Your task to perform on an android device: Open privacy settings Image 0: 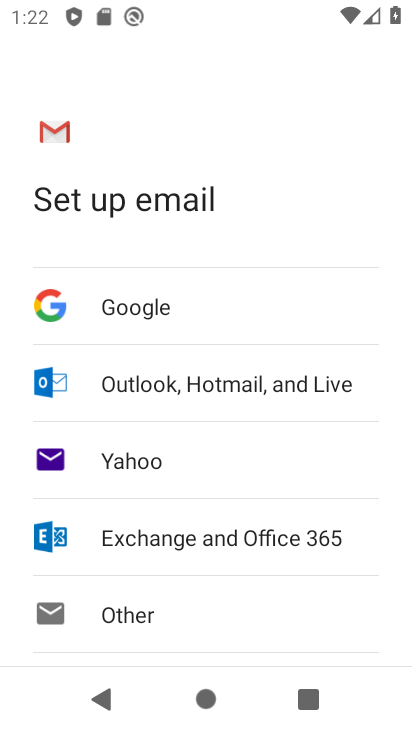
Step 0: press home button
Your task to perform on an android device: Open privacy settings Image 1: 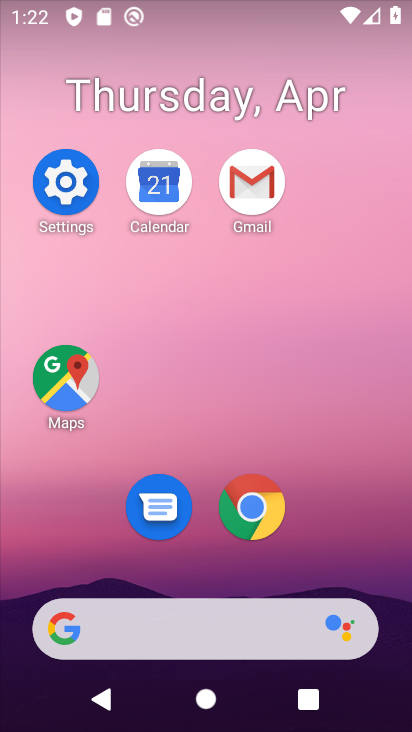
Step 1: click (79, 184)
Your task to perform on an android device: Open privacy settings Image 2: 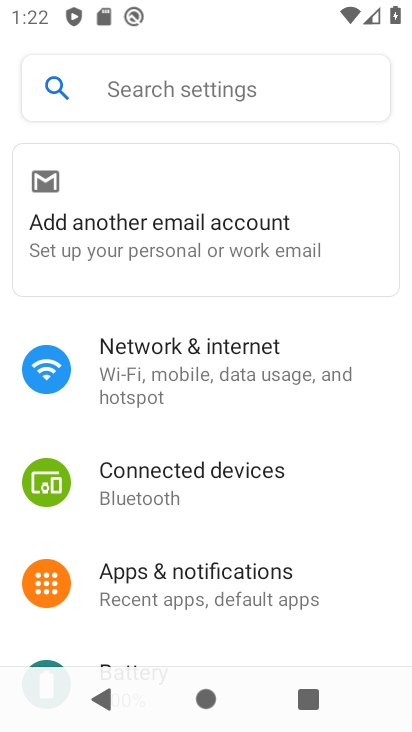
Step 2: drag from (163, 611) to (213, 115)
Your task to perform on an android device: Open privacy settings Image 3: 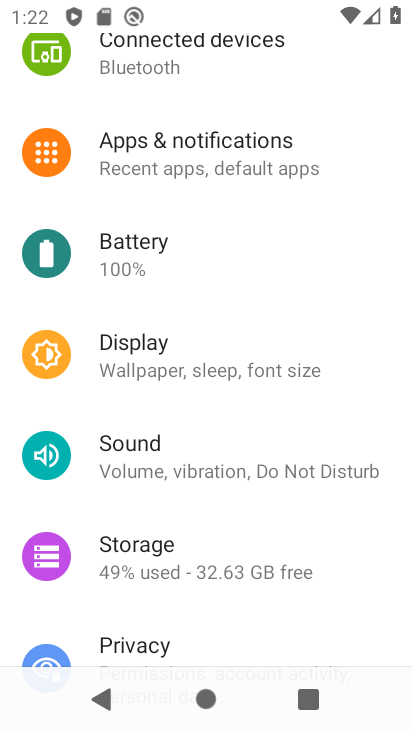
Step 3: drag from (185, 549) to (213, 118)
Your task to perform on an android device: Open privacy settings Image 4: 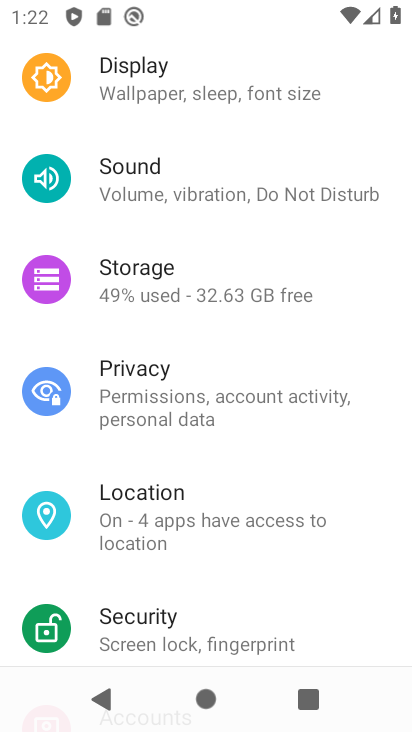
Step 4: click (182, 392)
Your task to perform on an android device: Open privacy settings Image 5: 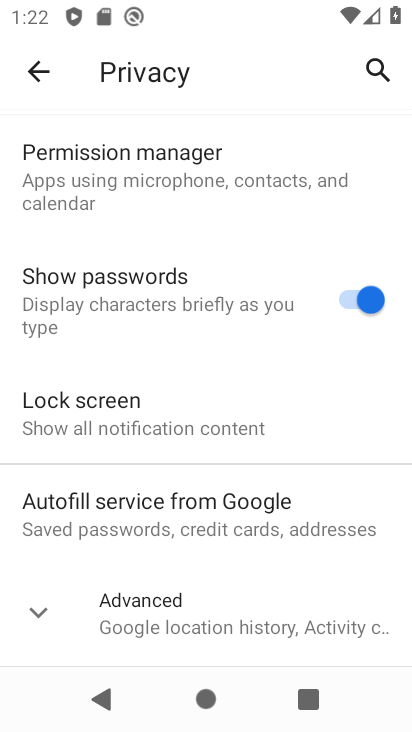
Step 5: task complete